Your task to perform on an android device: open device folders in google photos Image 0: 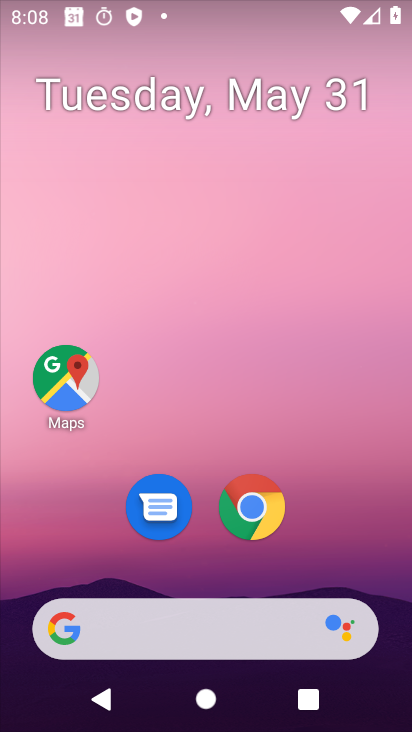
Step 0: drag from (323, 528) to (321, 12)
Your task to perform on an android device: open device folders in google photos Image 1: 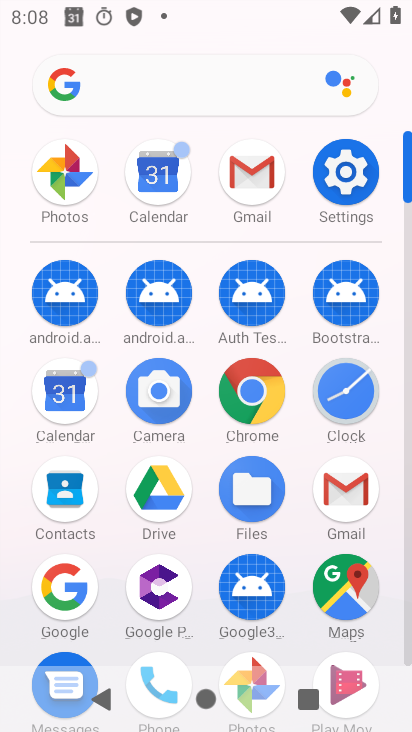
Step 1: click (65, 177)
Your task to perform on an android device: open device folders in google photos Image 2: 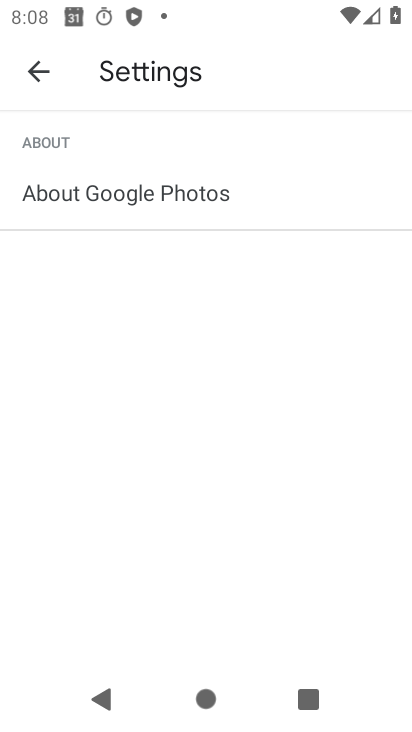
Step 2: click (35, 80)
Your task to perform on an android device: open device folders in google photos Image 3: 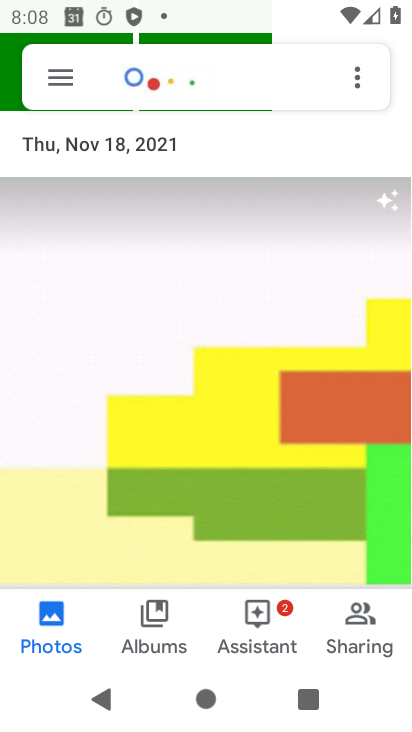
Step 3: click (56, 77)
Your task to perform on an android device: open device folders in google photos Image 4: 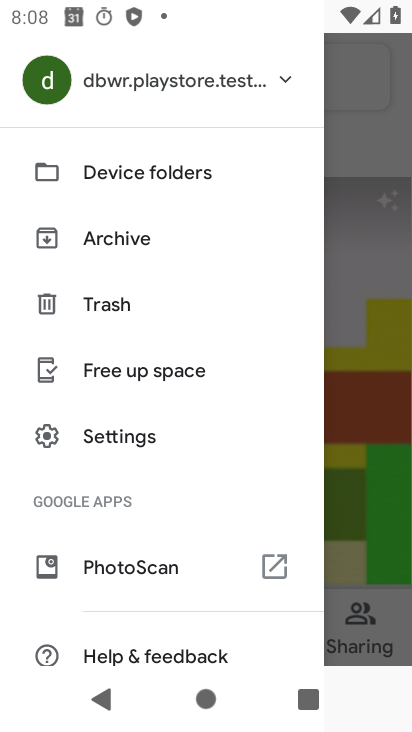
Step 4: click (104, 175)
Your task to perform on an android device: open device folders in google photos Image 5: 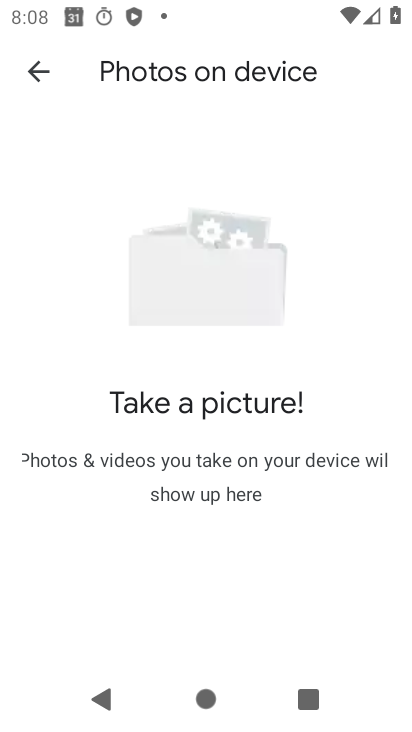
Step 5: task complete